Your task to perform on an android device: What's the weather? Image 0: 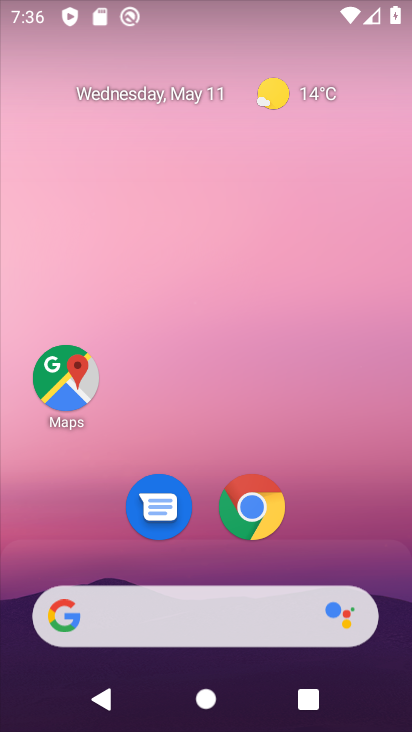
Step 0: drag from (325, 565) to (348, 9)
Your task to perform on an android device: What's the weather? Image 1: 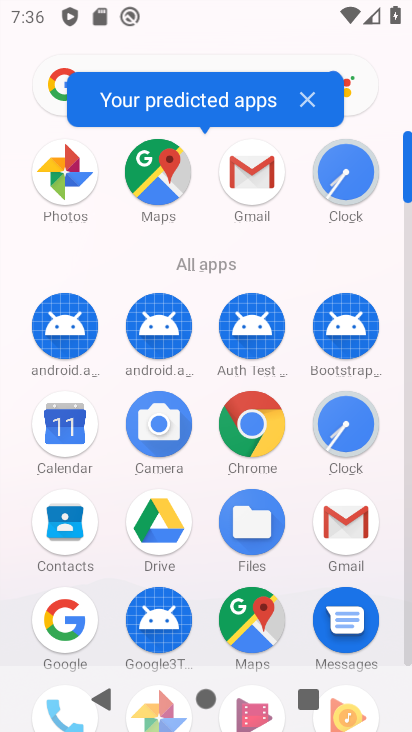
Step 1: press back button
Your task to perform on an android device: What's the weather? Image 2: 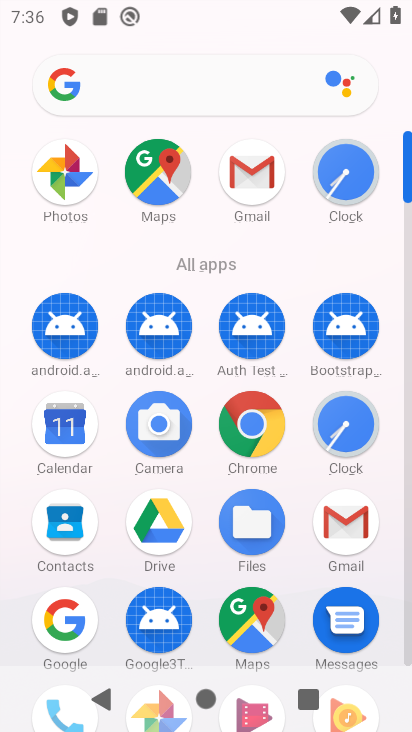
Step 2: press back button
Your task to perform on an android device: What's the weather? Image 3: 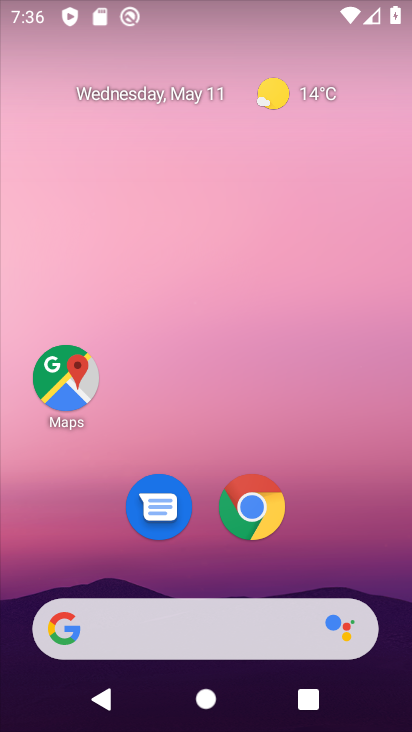
Step 3: click (315, 92)
Your task to perform on an android device: What's the weather? Image 4: 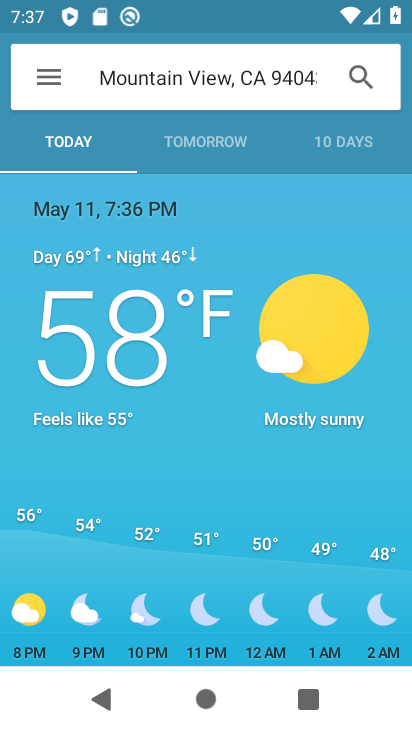
Step 4: drag from (255, 496) to (326, 107)
Your task to perform on an android device: What's the weather? Image 5: 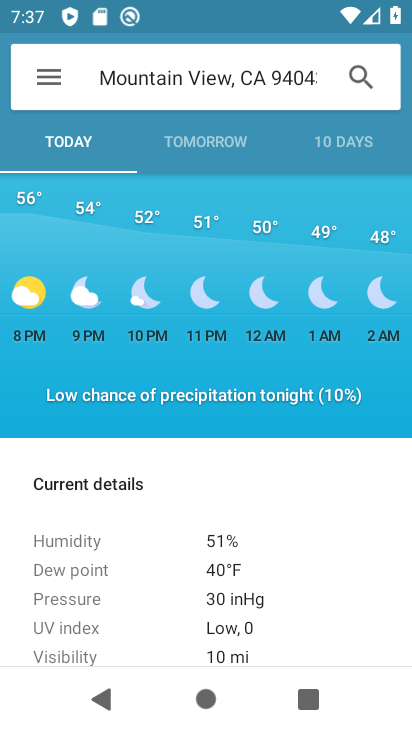
Step 5: drag from (231, 587) to (286, 249)
Your task to perform on an android device: What's the weather? Image 6: 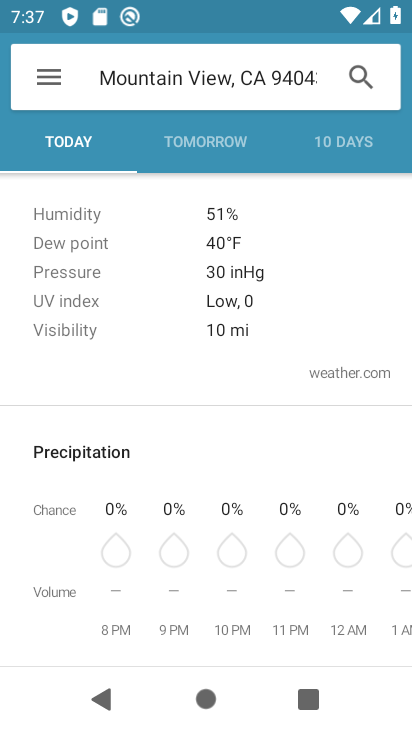
Step 6: drag from (295, 502) to (342, 190)
Your task to perform on an android device: What's the weather? Image 7: 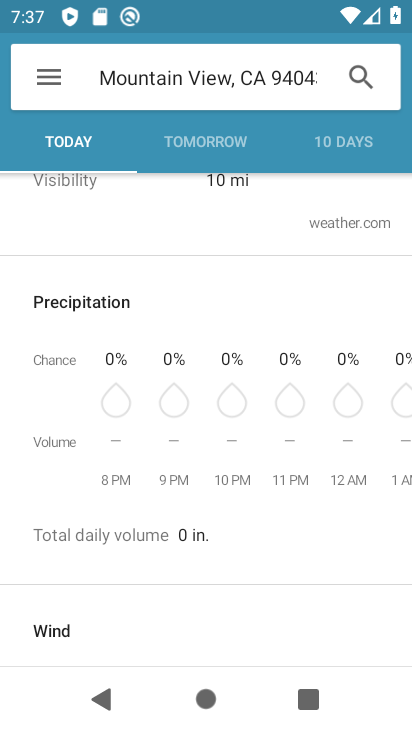
Step 7: drag from (288, 582) to (382, 191)
Your task to perform on an android device: What's the weather? Image 8: 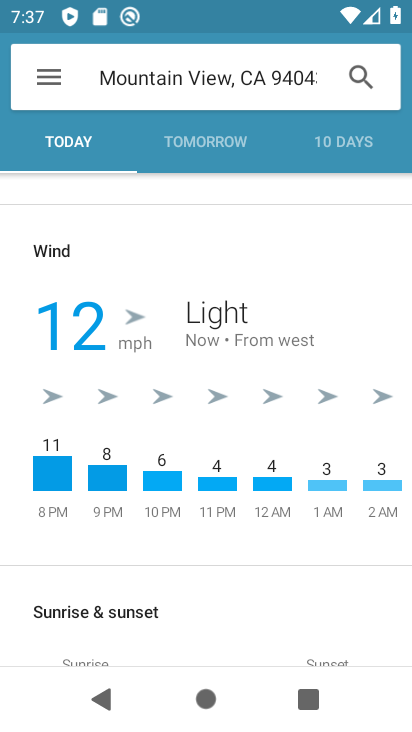
Step 8: drag from (314, 240) to (348, 601)
Your task to perform on an android device: What's the weather? Image 9: 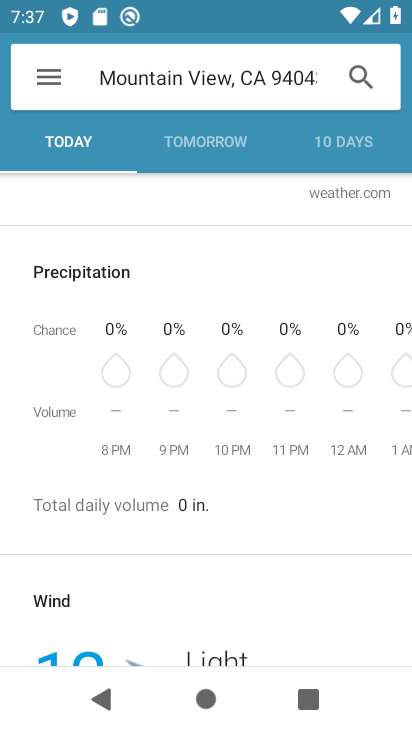
Step 9: drag from (347, 236) to (369, 624)
Your task to perform on an android device: What's the weather? Image 10: 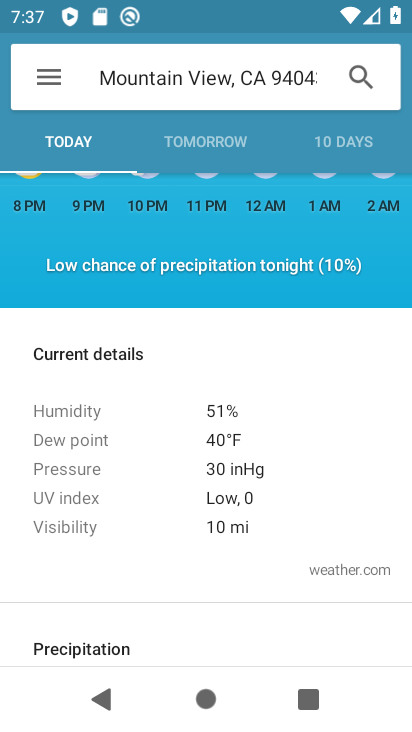
Step 10: drag from (313, 272) to (370, 612)
Your task to perform on an android device: What's the weather? Image 11: 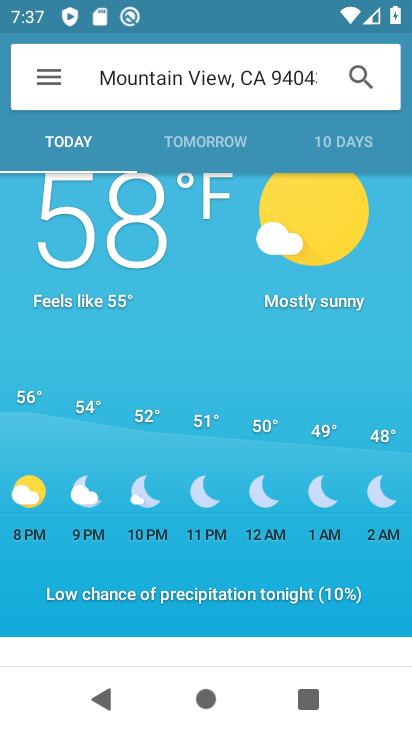
Step 11: drag from (313, 305) to (362, 639)
Your task to perform on an android device: What's the weather? Image 12: 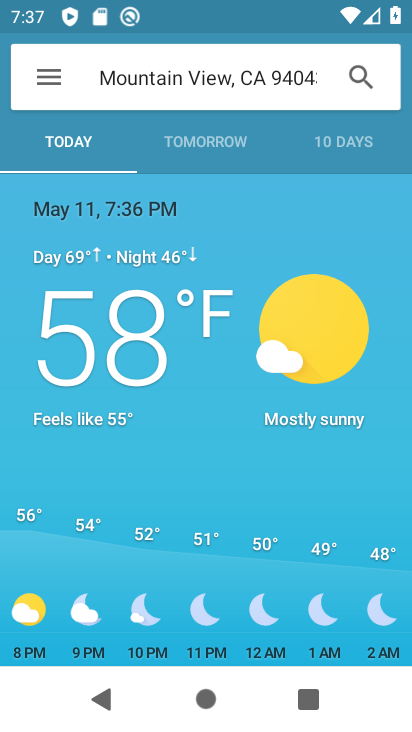
Step 12: click (361, 135)
Your task to perform on an android device: What's the weather? Image 13: 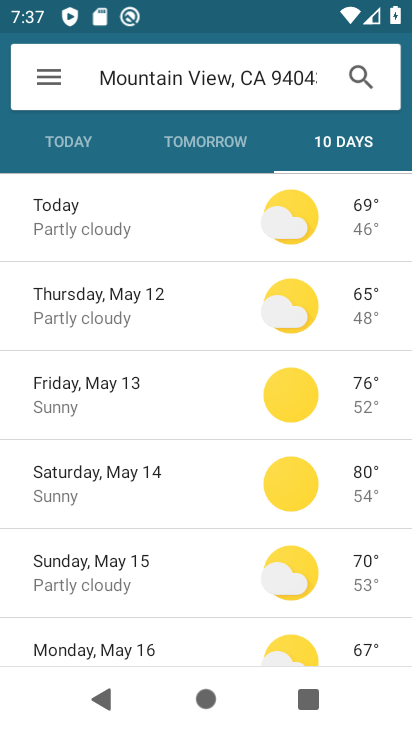
Step 13: task complete